Your task to perform on an android device: clear all cookies in the chrome app Image 0: 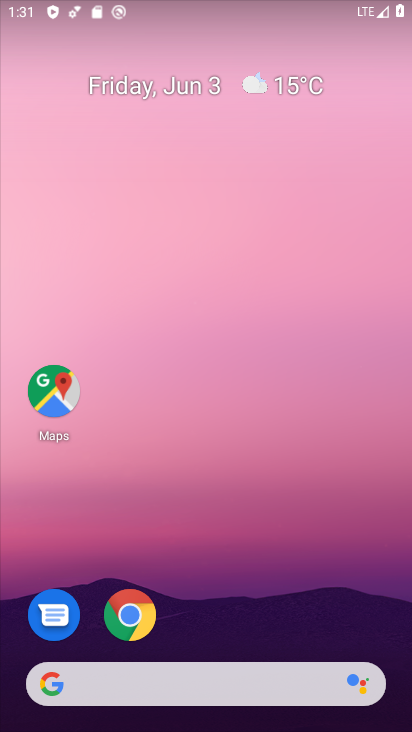
Step 0: click (212, 120)
Your task to perform on an android device: clear all cookies in the chrome app Image 1: 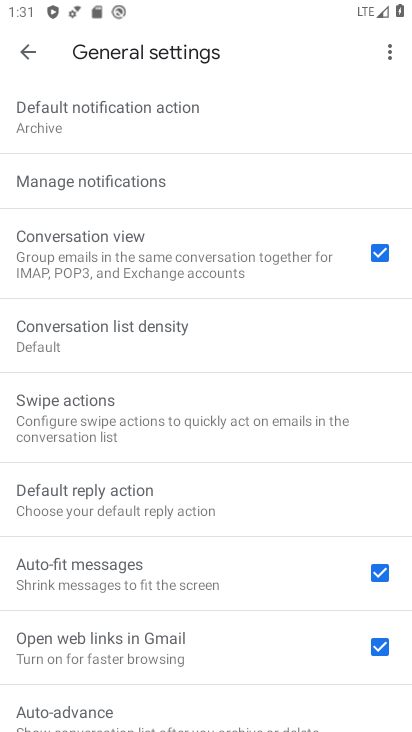
Step 1: drag from (111, 357) to (4, 710)
Your task to perform on an android device: clear all cookies in the chrome app Image 2: 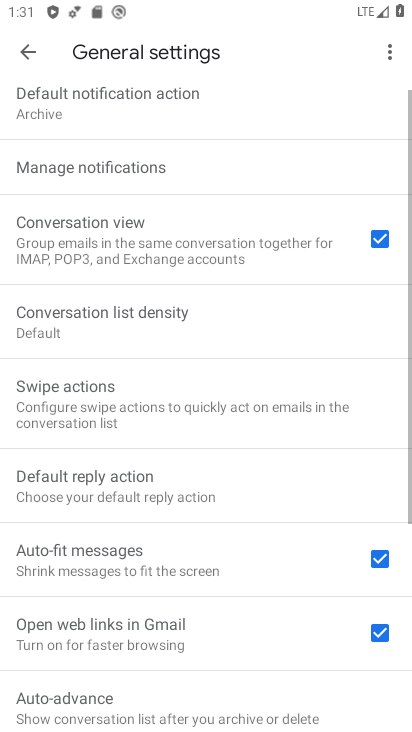
Step 2: drag from (173, 294) to (392, 702)
Your task to perform on an android device: clear all cookies in the chrome app Image 3: 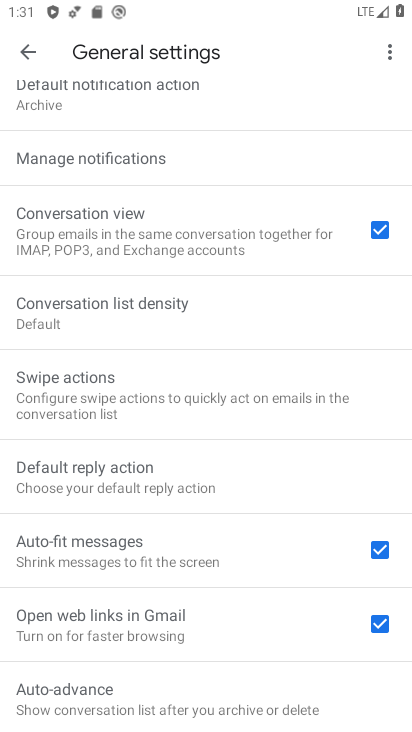
Step 3: drag from (221, 638) to (281, 268)
Your task to perform on an android device: clear all cookies in the chrome app Image 4: 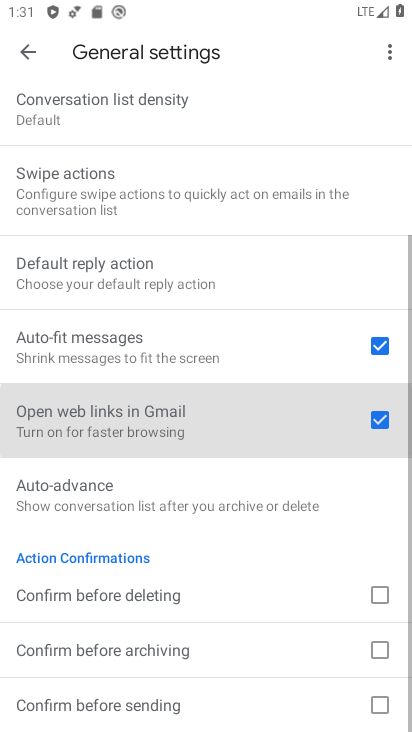
Step 4: drag from (270, 224) to (238, 707)
Your task to perform on an android device: clear all cookies in the chrome app Image 5: 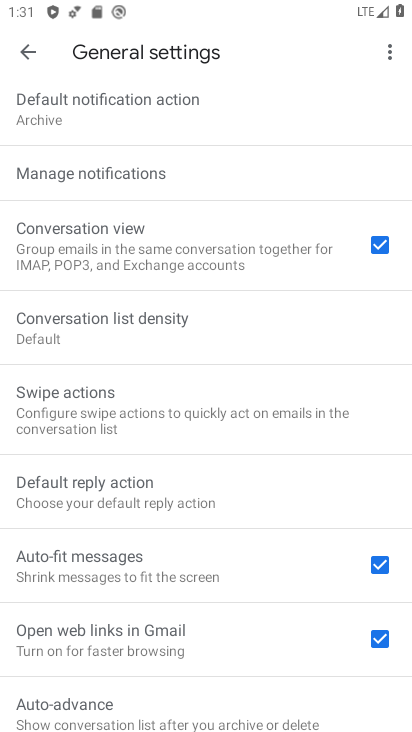
Step 5: drag from (209, 340) to (267, 727)
Your task to perform on an android device: clear all cookies in the chrome app Image 6: 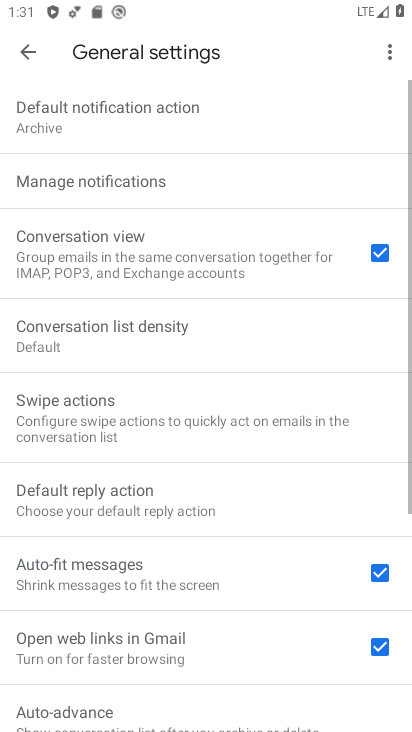
Step 6: press back button
Your task to perform on an android device: clear all cookies in the chrome app Image 7: 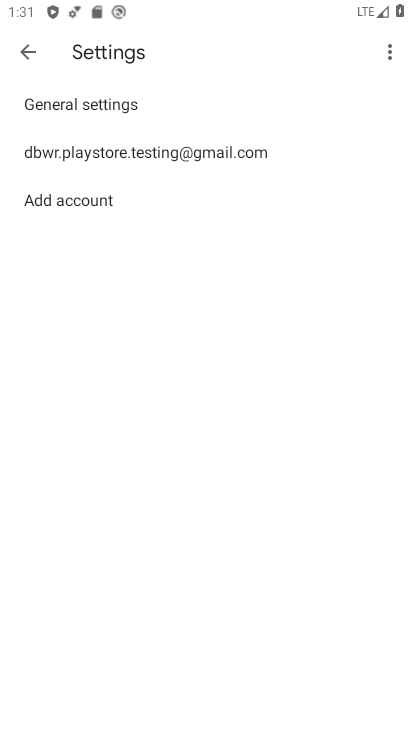
Step 7: drag from (155, 587) to (282, 107)
Your task to perform on an android device: clear all cookies in the chrome app Image 8: 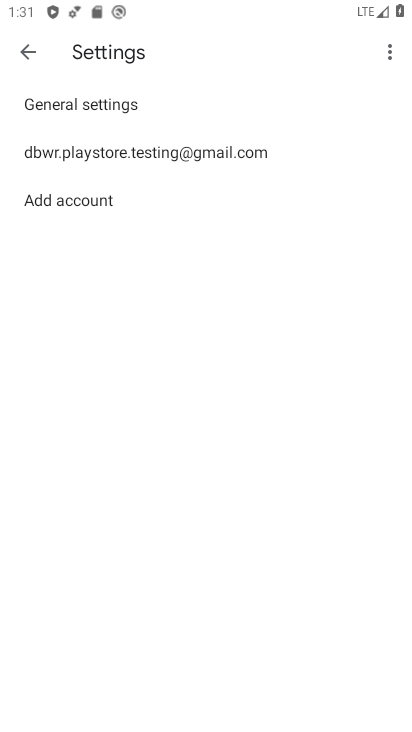
Step 8: click (17, 46)
Your task to perform on an android device: clear all cookies in the chrome app Image 9: 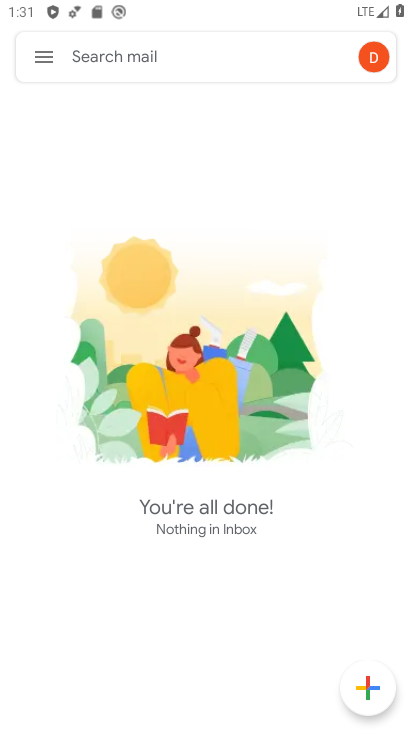
Step 9: drag from (204, 432) to (243, 106)
Your task to perform on an android device: clear all cookies in the chrome app Image 10: 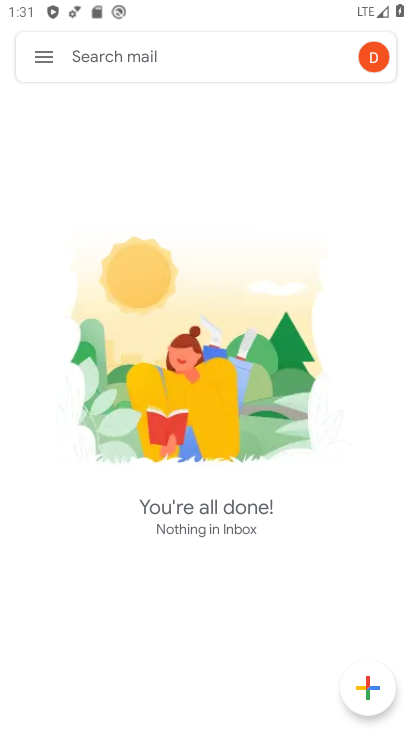
Step 10: click (61, 65)
Your task to perform on an android device: clear all cookies in the chrome app Image 11: 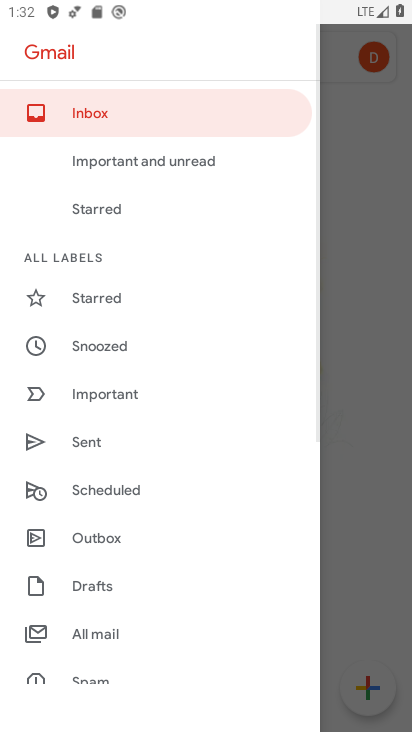
Step 11: drag from (136, 643) to (279, 130)
Your task to perform on an android device: clear all cookies in the chrome app Image 12: 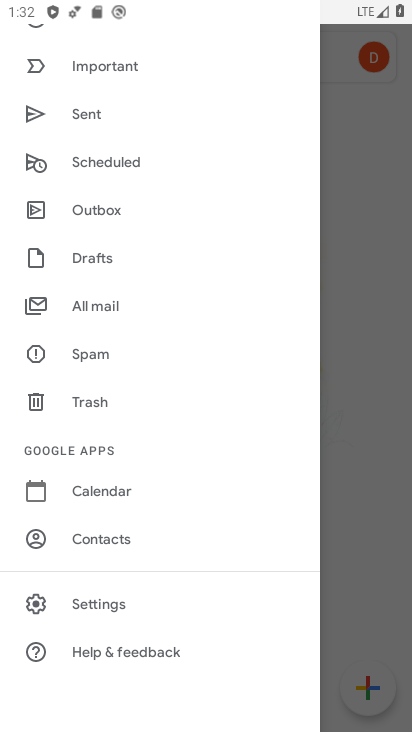
Step 12: click (104, 604)
Your task to perform on an android device: clear all cookies in the chrome app Image 13: 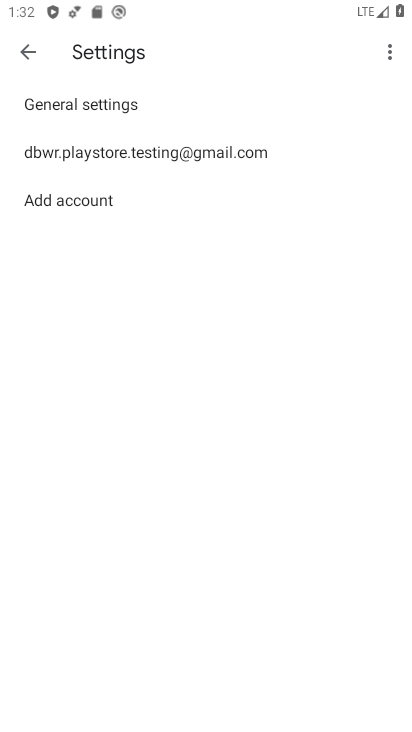
Step 13: press home button
Your task to perform on an android device: clear all cookies in the chrome app Image 14: 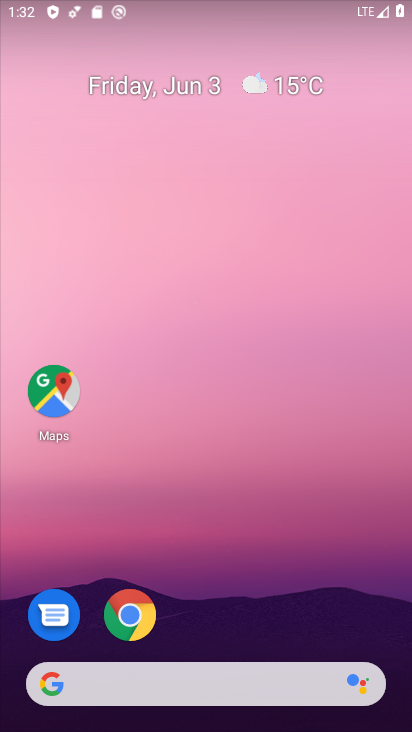
Step 14: click (229, 147)
Your task to perform on an android device: clear all cookies in the chrome app Image 15: 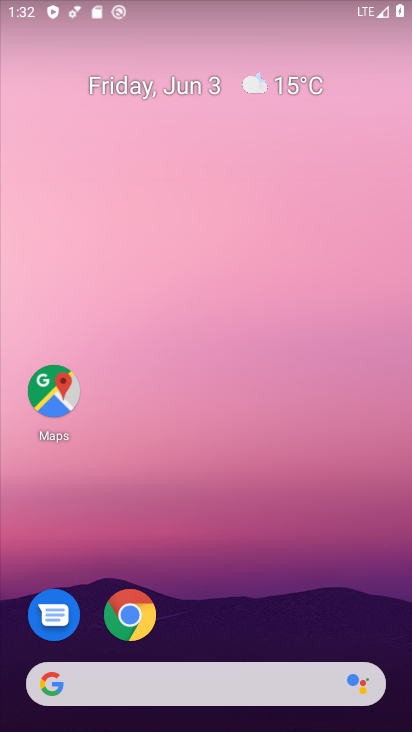
Step 15: click (127, 596)
Your task to perform on an android device: clear all cookies in the chrome app Image 16: 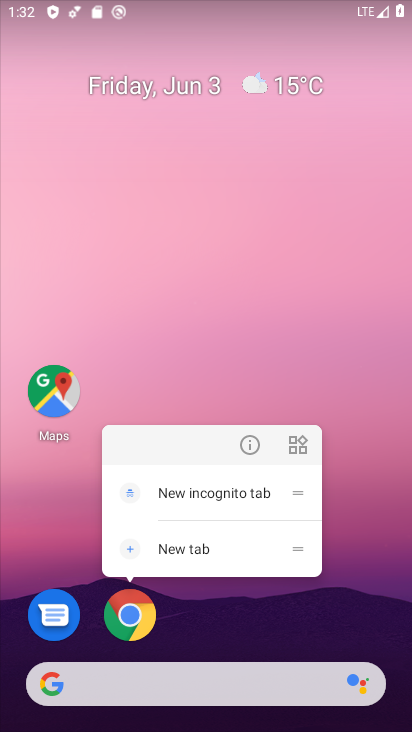
Step 16: click (247, 439)
Your task to perform on an android device: clear all cookies in the chrome app Image 17: 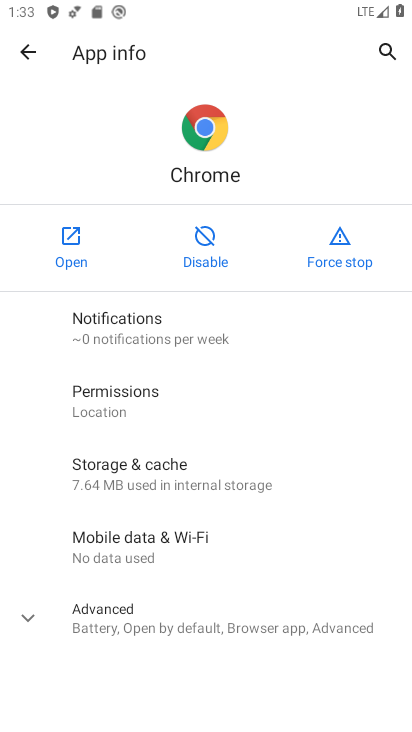
Step 17: click (65, 236)
Your task to perform on an android device: clear all cookies in the chrome app Image 18: 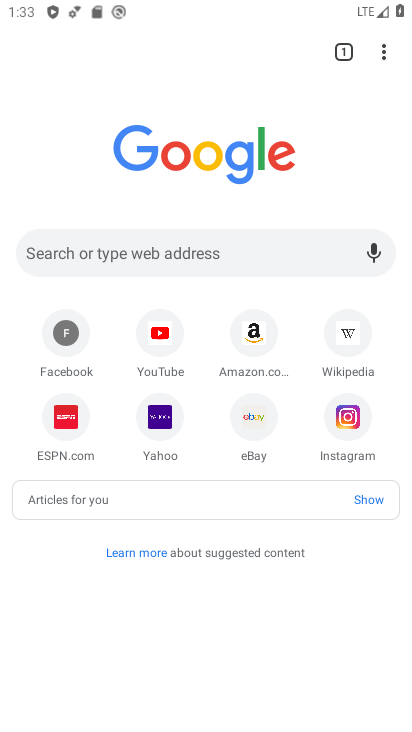
Step 18: click (397, 52)
Your task to perform on an android device: clear all cookies in the chrome app Image 19: 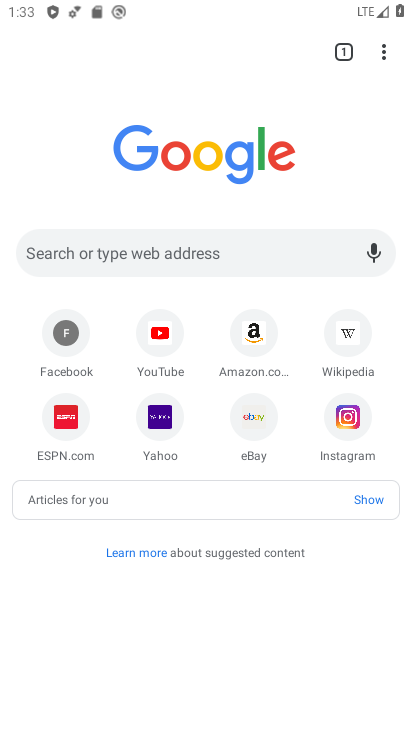
Step 19: click (389, 51)
Your task to perform on an android device: clear all cookies in the chrome app Image 20: 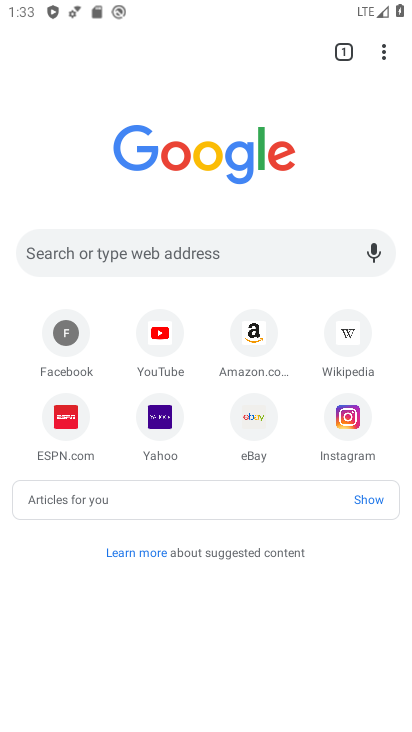
Step 20: task complete